Your task to perform on an android device: Add bose soundsport free to the cart on newegg Image 0: 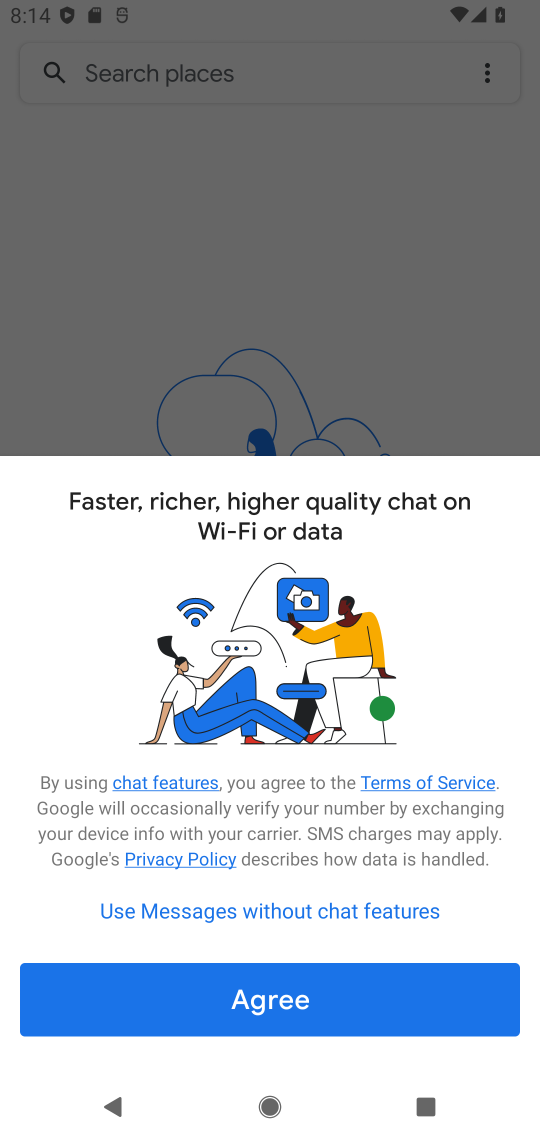
Step 0: press home button
Your task to perform on an android device: Add bose soundsport free to the cart on newegg Image 1: 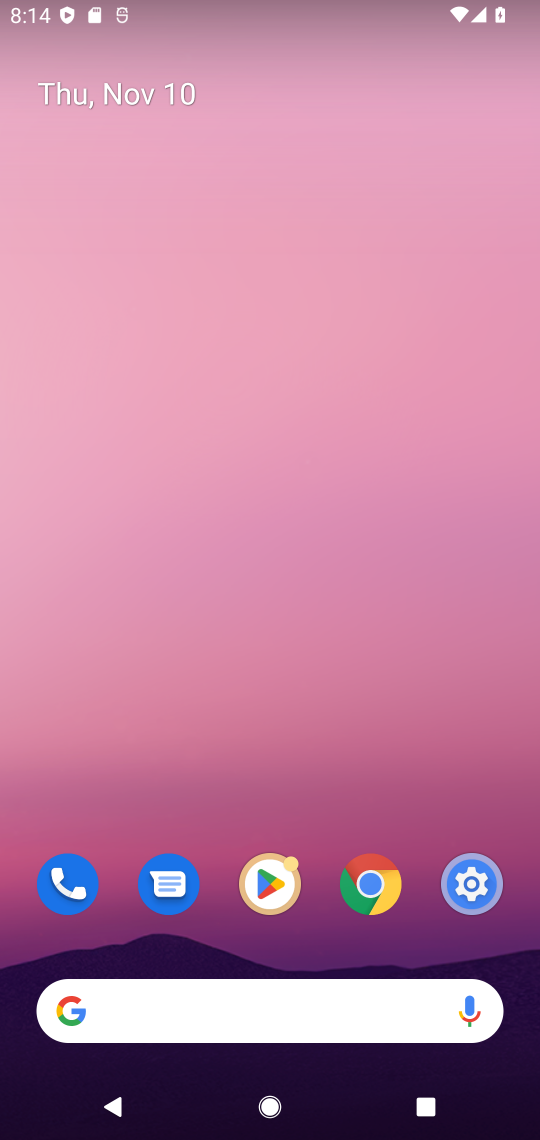
Step 1: click (257, 1008)
Your task to perform on an android device: Add bose soundsport free to the cart on newegg Image 2: 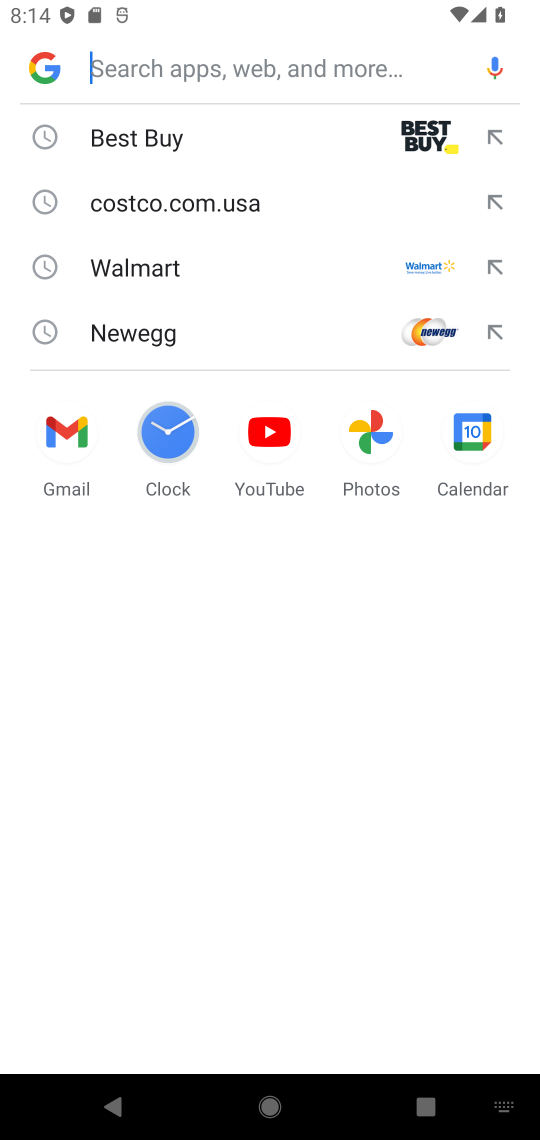
Step 2: click (239, 337)
Your task to perform on an android device: Add bose soundsport free to the cart on newegg Image 3: 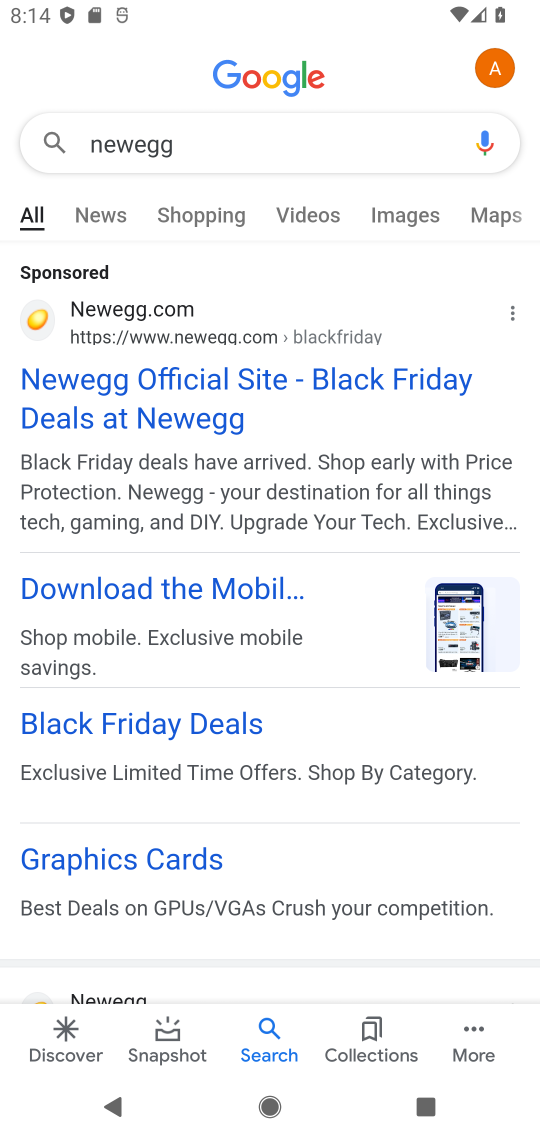
Step 3: click (147, 309)
Your task to perform on an android device: Add bose soundsport free to the cart on newegg Image 4: 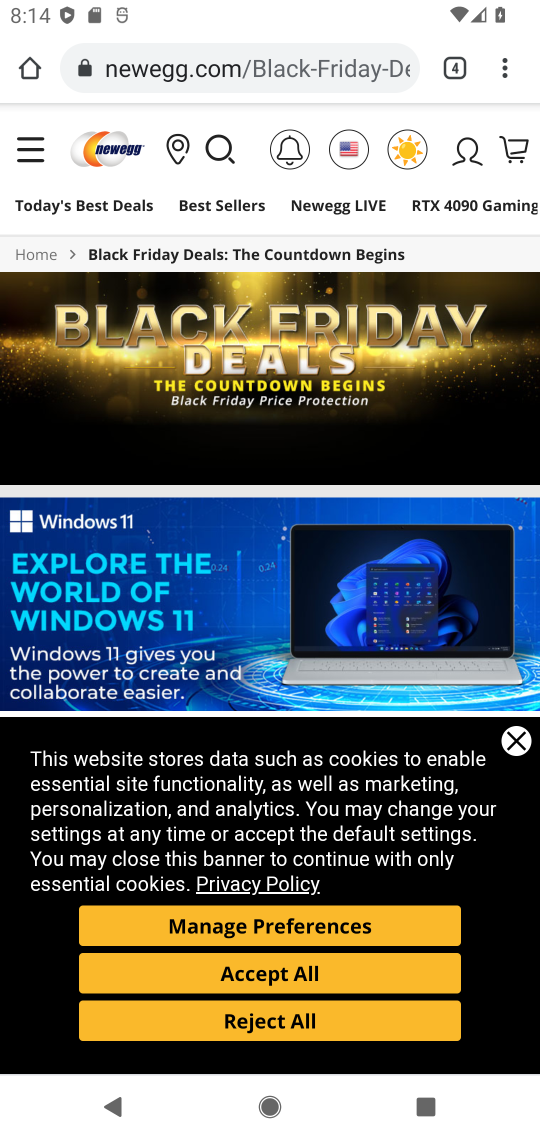
Step 4: click (231, 1031)
Your task to perform on an android device: Add bose soundsport free to the cart on newegg Image 5: 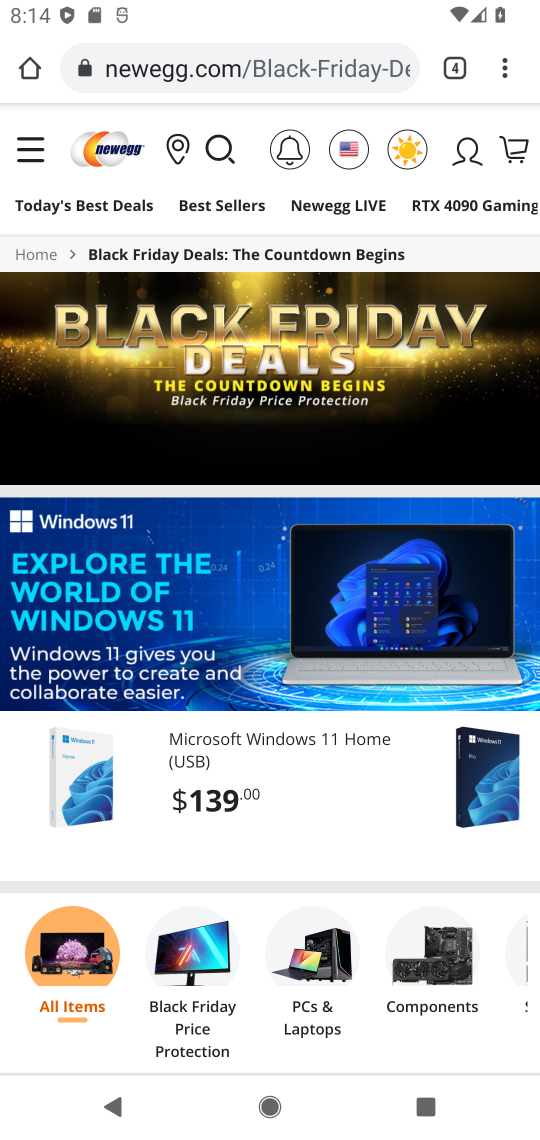
Step 5: click (220, 156)
Your task to perform on an android device: Add bose soundsport free to the cart on newegg Image 6: 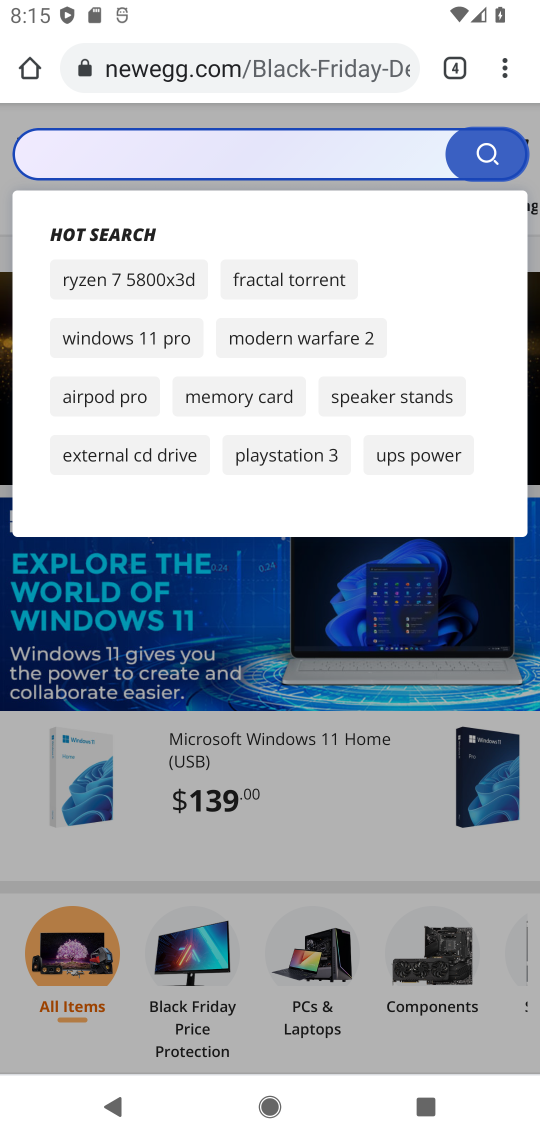
Step 6: click (205, 156)
Your task to perform on an android device: Add bose soundsport free to the cart on newegg Image 7: 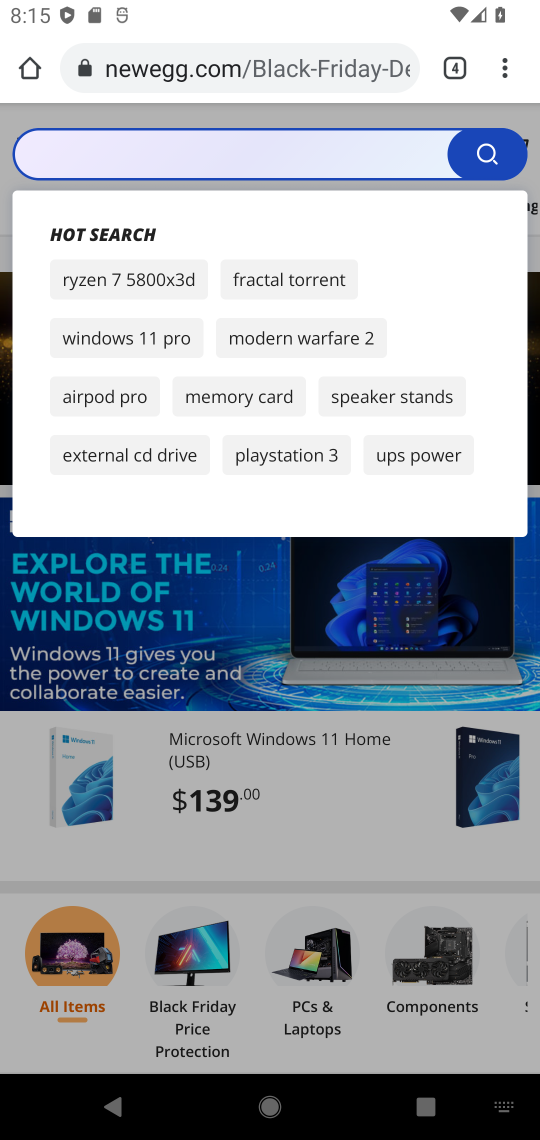
Step 7: type "bose soundsport free "
Your task to perform on an android device: Add bose soundsport free to the cart on newegg Image 8: 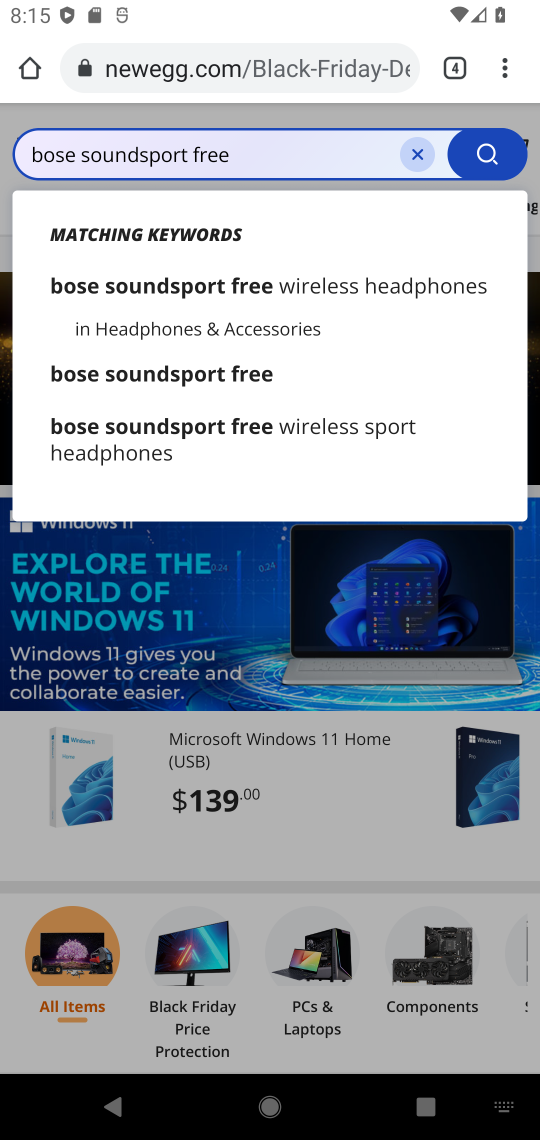
Step 8: click (260, 274)
Your task to perform on an android device: Add bose soundsport free to the cart on newegg Image 9: 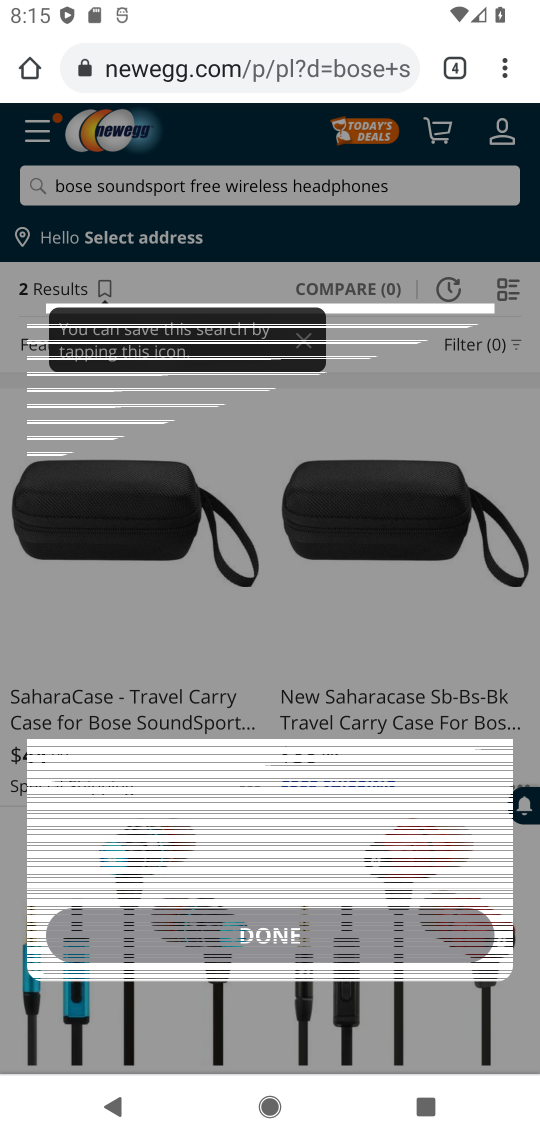
Step 9: click (103, 534)
Your task to perform on an android device: Add bose soundsport free to the cart on newegg Image 10: 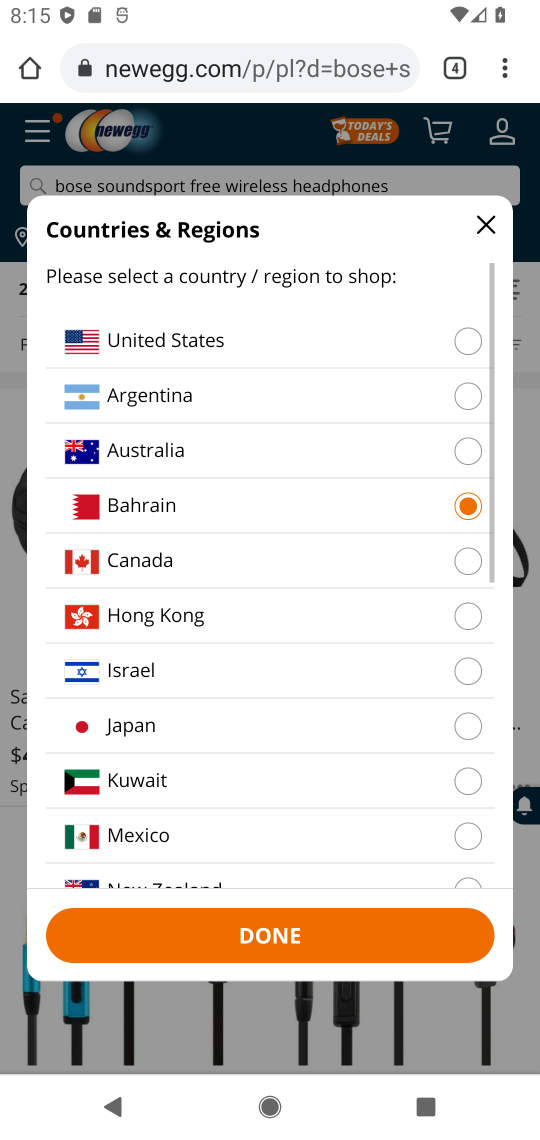
Step 10: click (460, 337)
Your task to perform on an android device: Add bose soundsport free to the cart on newegg Image 11: 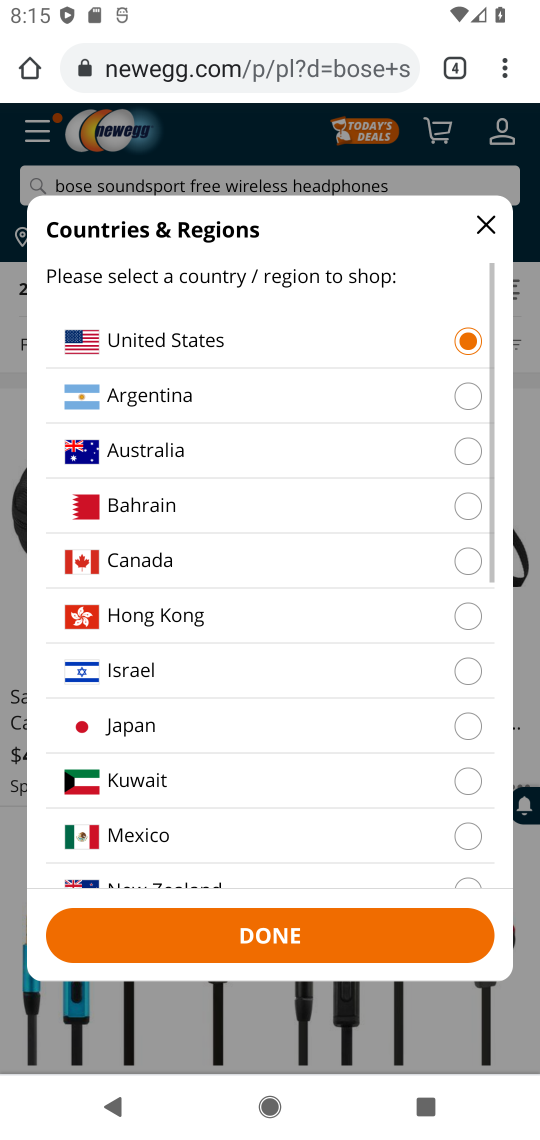
Step 11: click (249, 922)
Your task to perform on an android device: Add bose soundsport free to the cart on newegg Image 12: 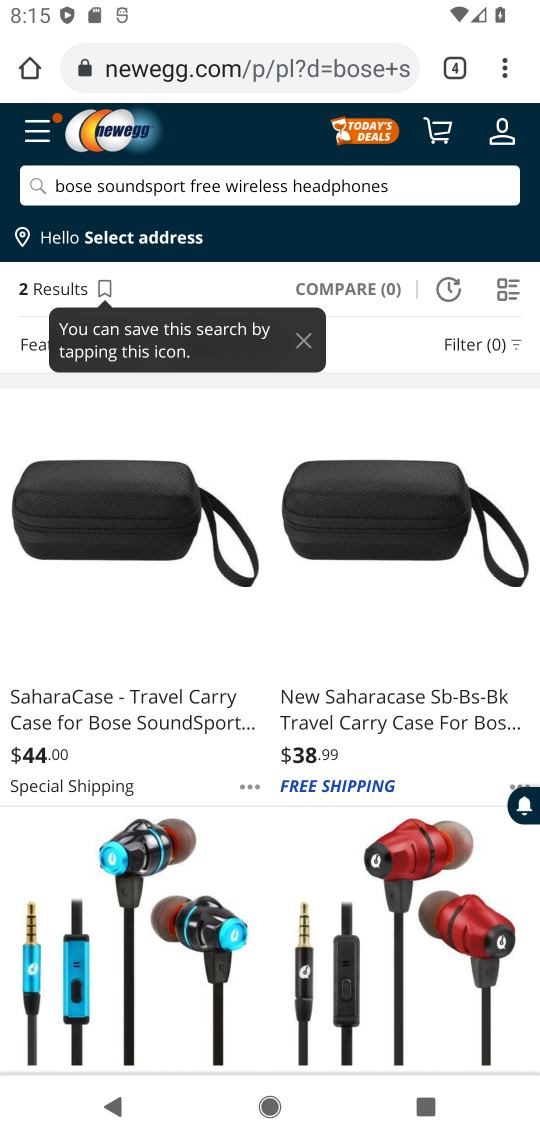
Step 12: click (60, 507)
Your task to perform on an android device: Add bose soundsport free to the cart on newegg Image 13: 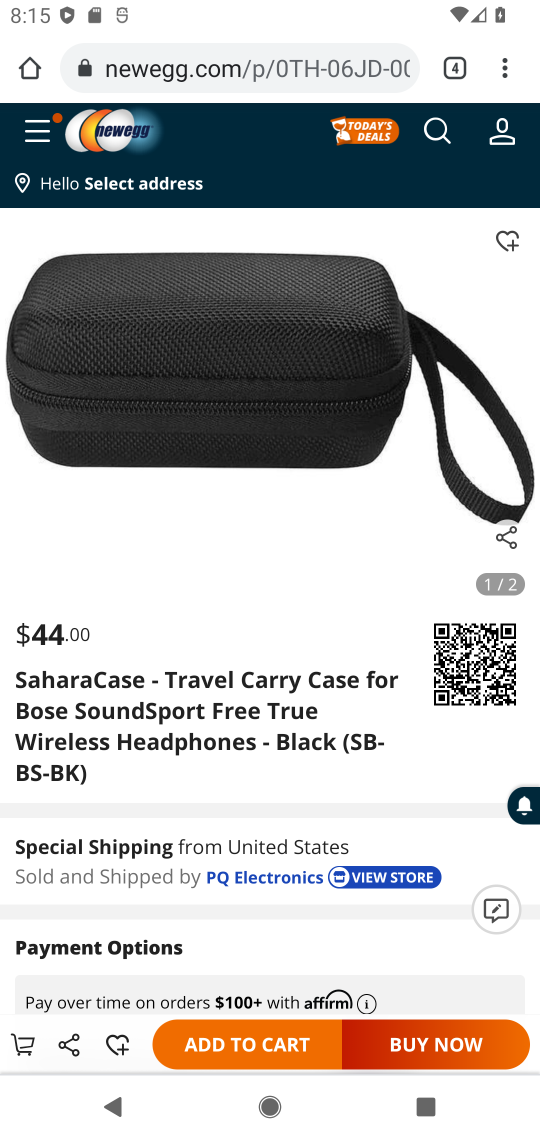
Step 13: click (232, 1052)
Your task to perform on an android device: Add bose soundsport free to the cart on newegg Image 14: 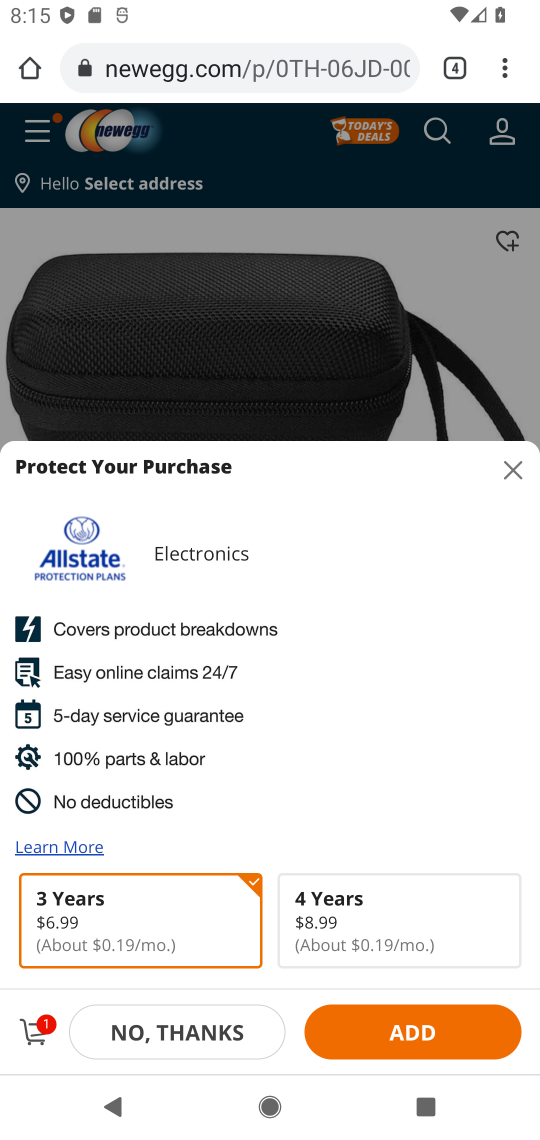
Step 14: task complete